Your task to perform on an android device: turn on priority inbox in the gmail app Image 0: 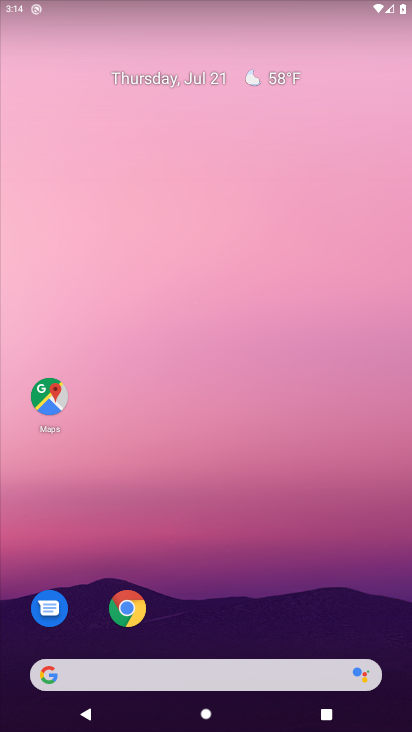
Step 0: press home button
Your task to perform on an android device: turn on priority inbox in the gmail app Image 1: 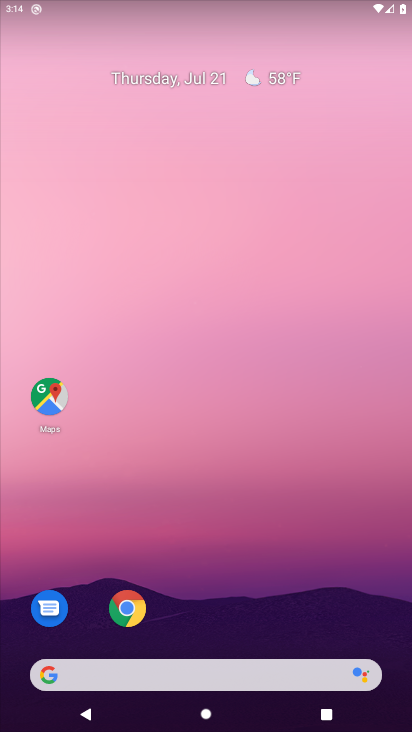
Step 1: drag from (214, 632) to (196, 46)
Your task to perform on an android device: turn on priority inbox in the gmail app Image 2: 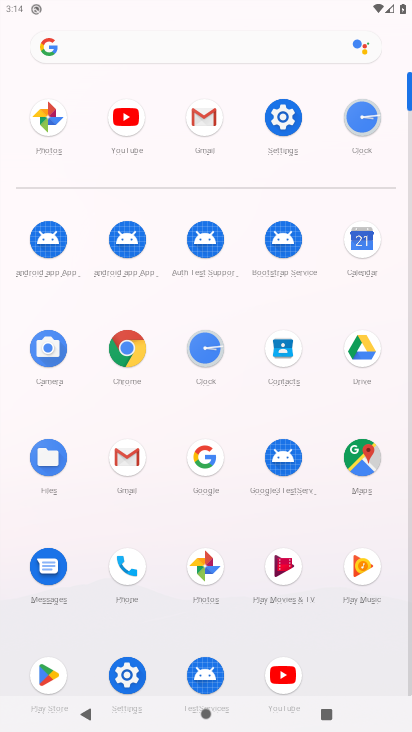
Step 2: click (202, 106)
Your task to perform on an android device: turn on priority inbox in the gmail app Image 3: 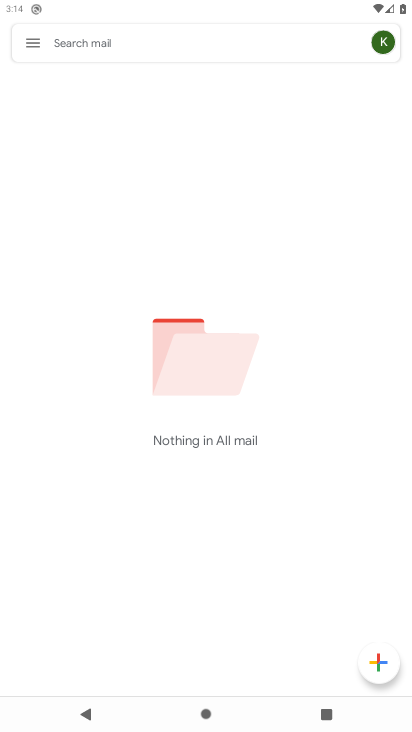
Step 3: click (29, 40)
Your task to perform on an android device: turn on priority inbox in the gmail app Image 4: 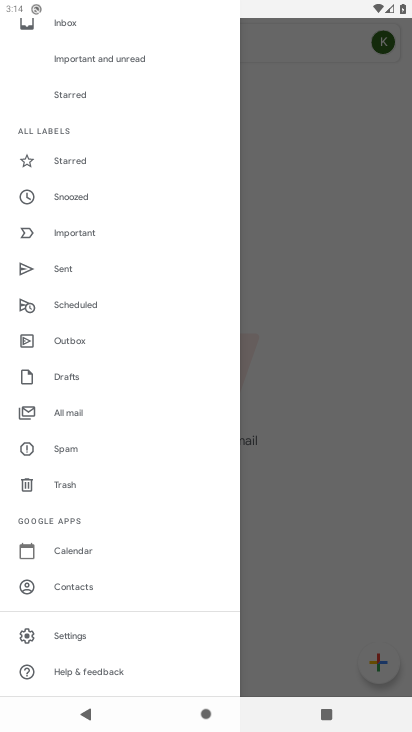
Step 4: click (84, 635)
Your task to perform on an android device: turn on priority inbox in the gmail app Image 5: 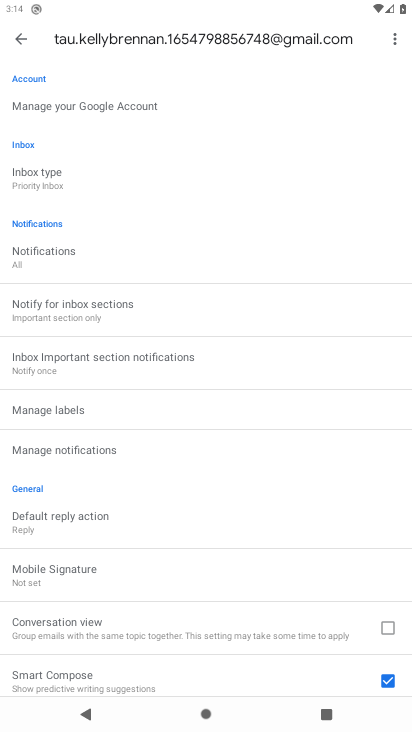
Step 5: click (63, 175)
Your task to perform on an android device: turn on priority inbox in the gmail app Image 6: 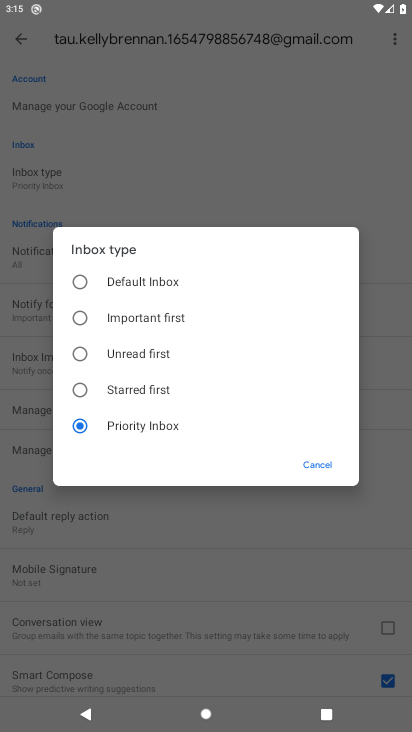
Step 6: click (92, 419)
Your task to perform on an android device: turn on priority inbox in the gmail app Image 7: 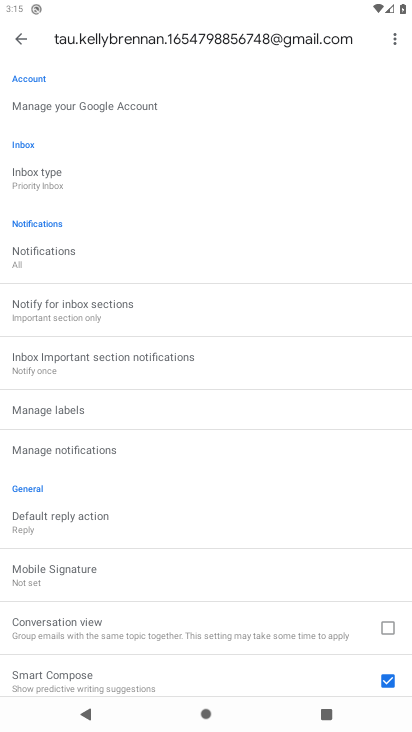
Step 7: task complete